Your task to perform on an android device: set an alarm Image 0: 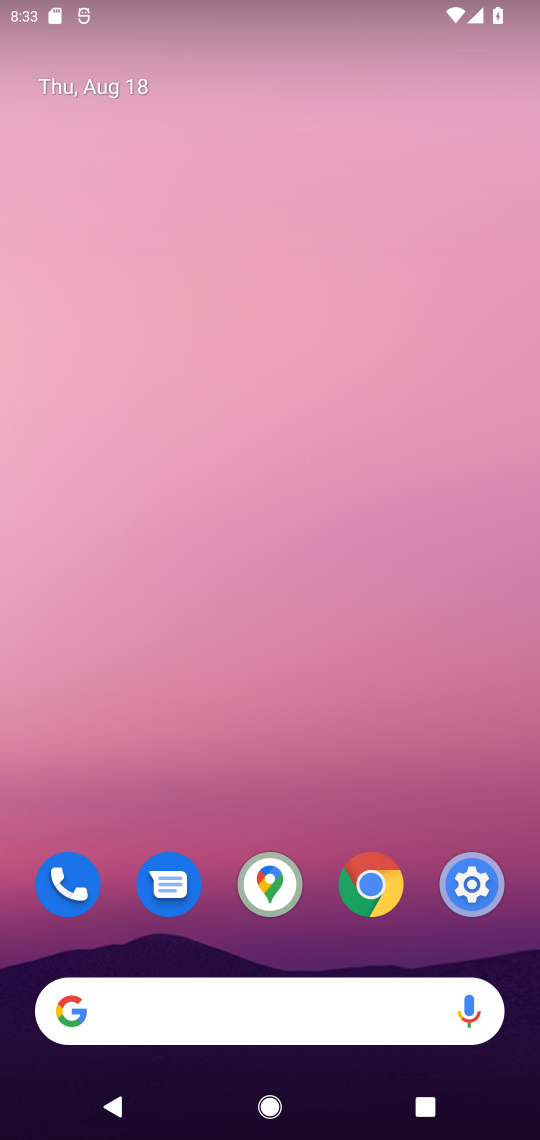
Step 0: drag from (213, 943) to (523, 305)
Your task to perform on an android device: set an alarm Image 1: 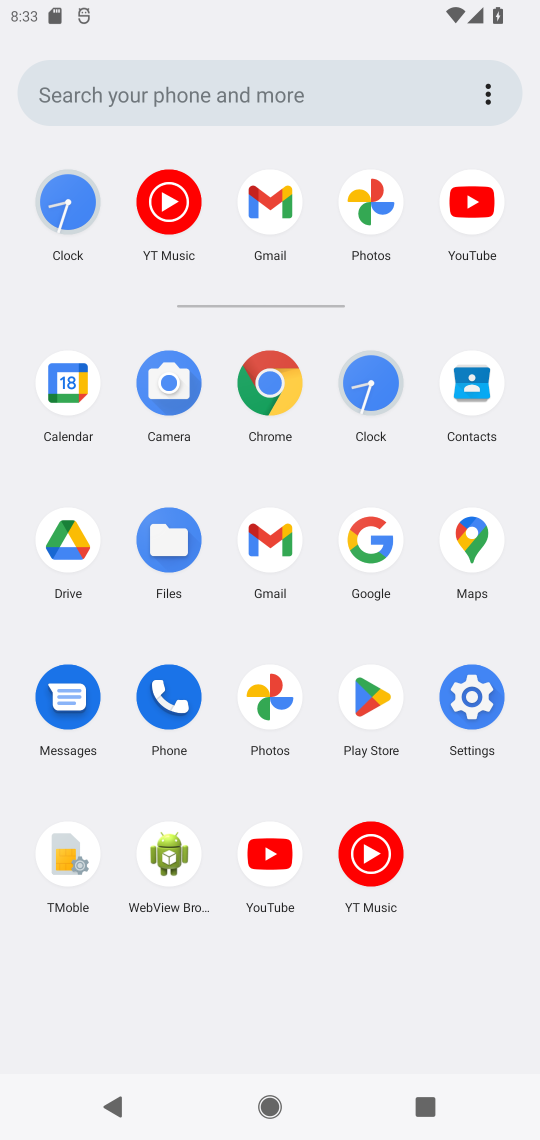
Step 1: click (378, 399)
Your task to perform on an android device: set an alarm Image 2: 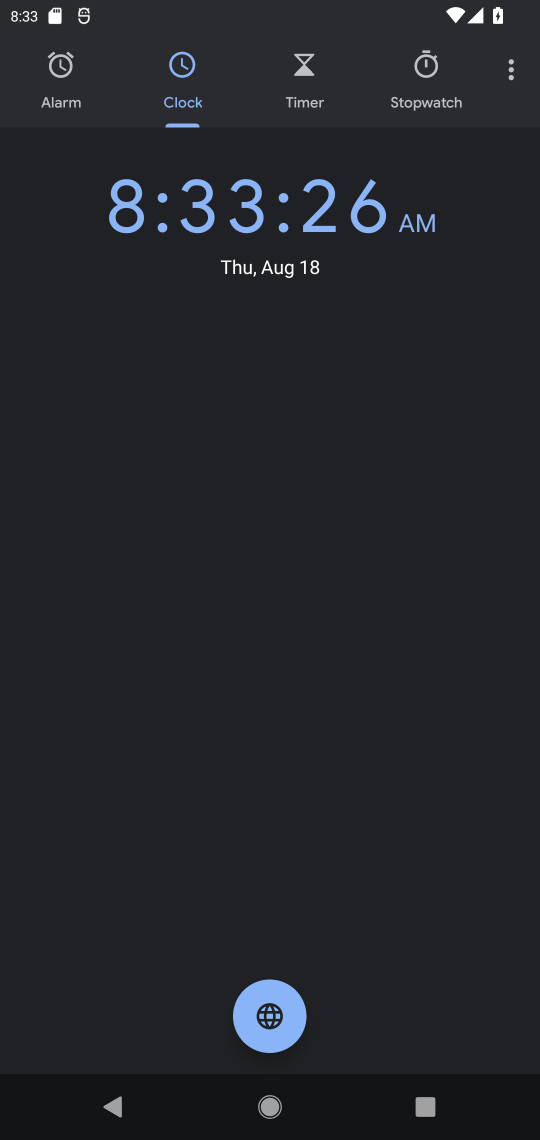
Step 2: click (378, 399)
Your task to perform on an android device: set an alarm Image 3: 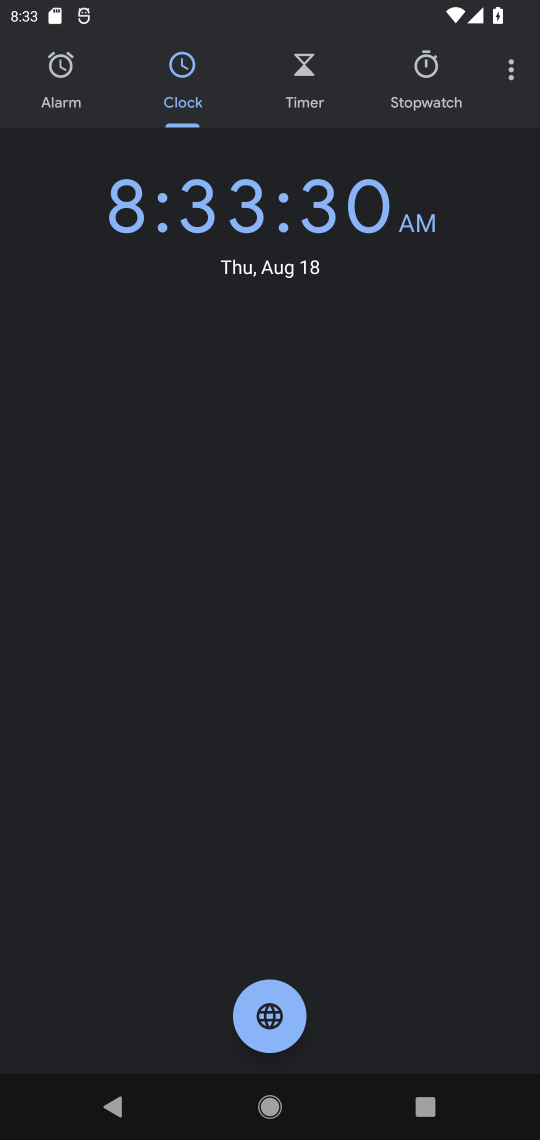
Step 3: click (77, 82)
Your task to perform on an android device: set an alarm Image 4: 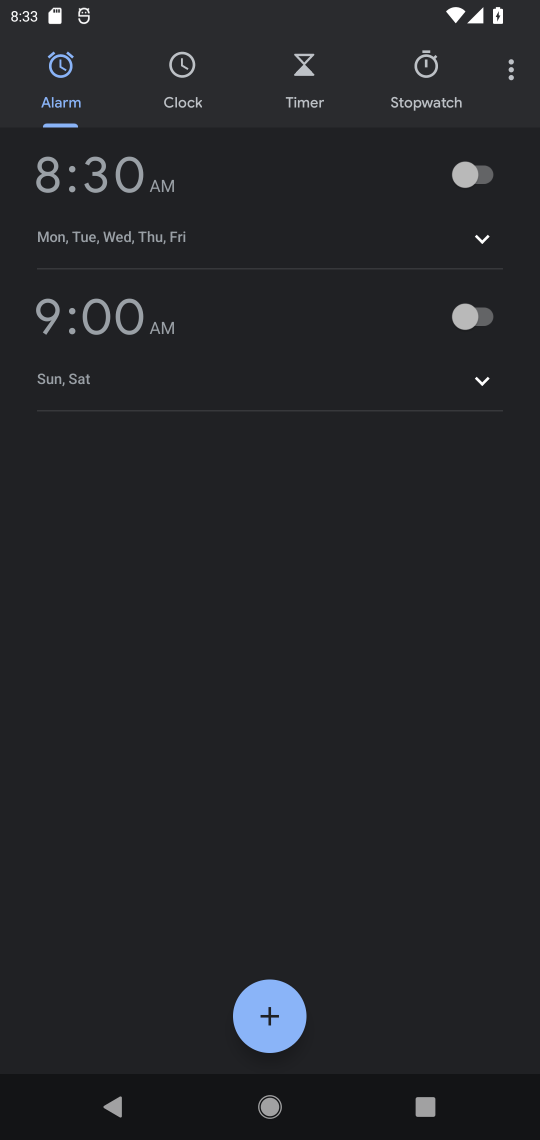
Step 4: click (466, 175)
Your task to perform on an android device: set an alarm Image 5: 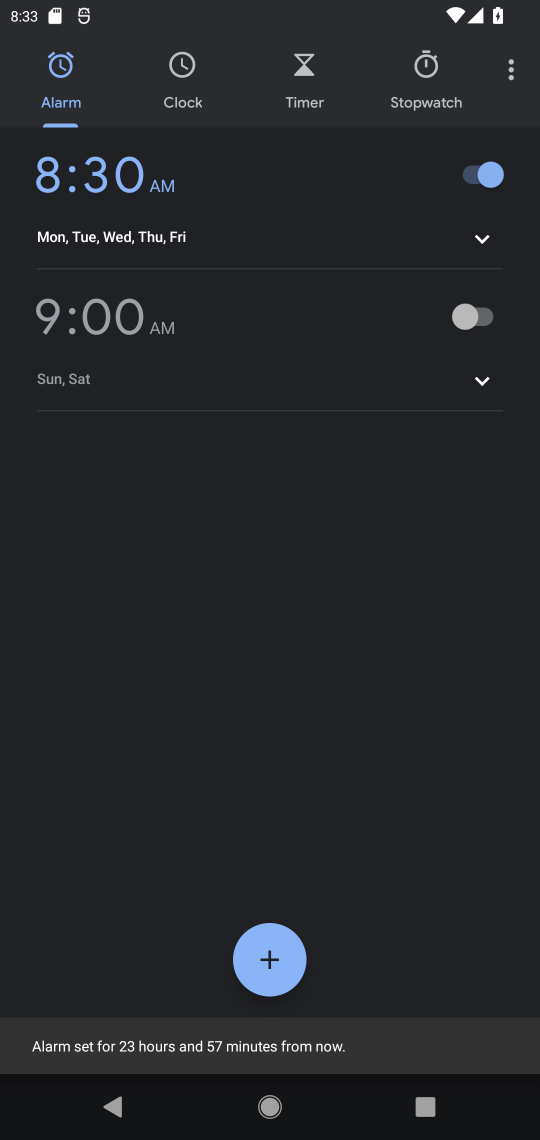
Step 5: task complete